Your task to perform on an android device: toggle priority inbox in the gmail app Image 0: 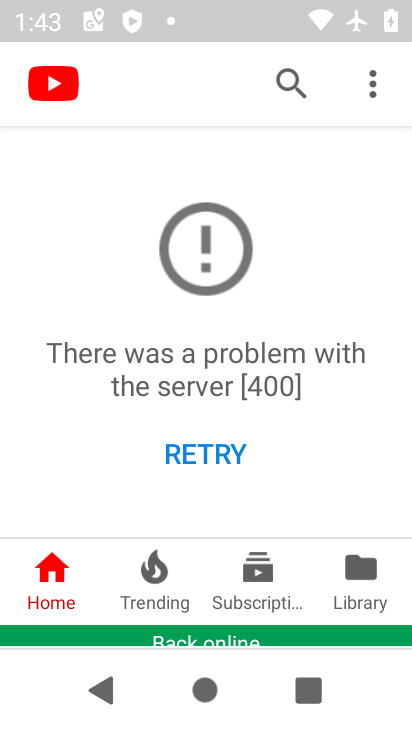
Step 0: press home button
Your task to perform on an android device: toggle priority inbox in the gmail app Image 1: 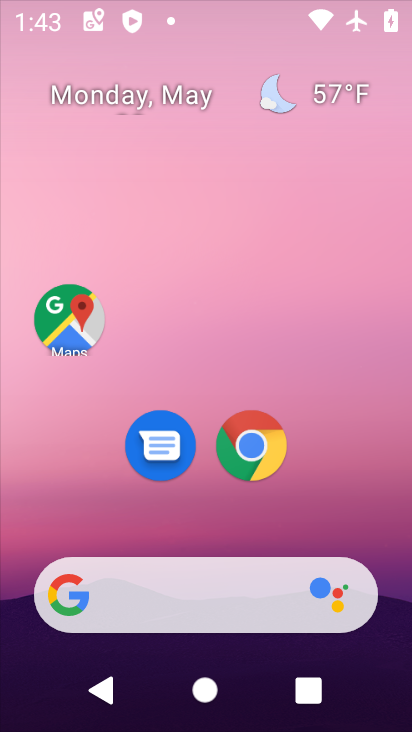
Step 1: drag from (262, 519) to (252, 71)
Your task to perform on an android device: toggle priority inbox in the gmail app Image 2: 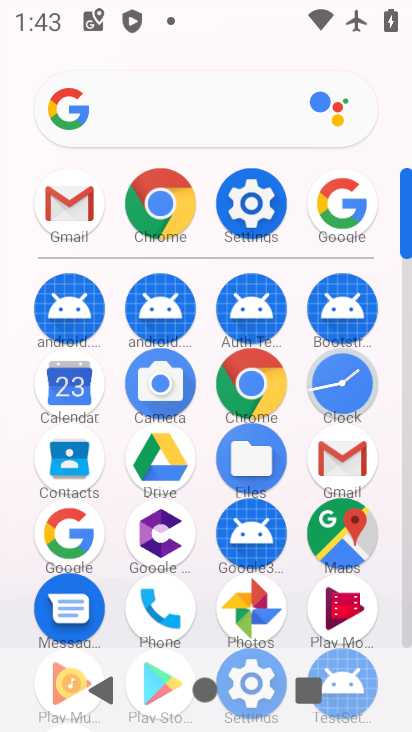
Step 2: click (62, 199)
Your task to perform on an android device: toggle priority inbox in the gmail app Image 3: 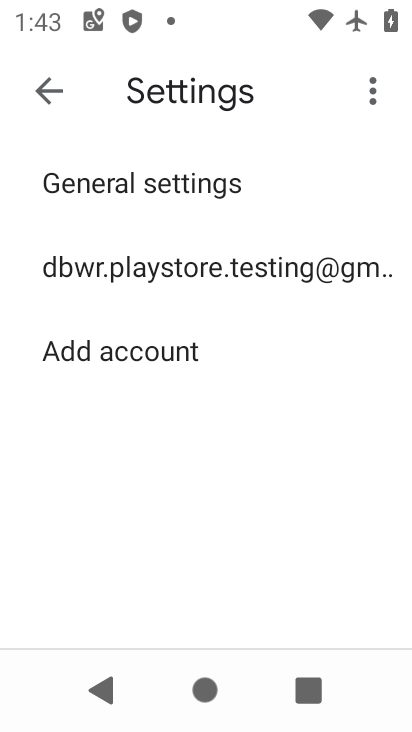
Step 3: click (109, 266)
Your task to perform on an android device: toggle priority inbox in the gmail app Image 4: 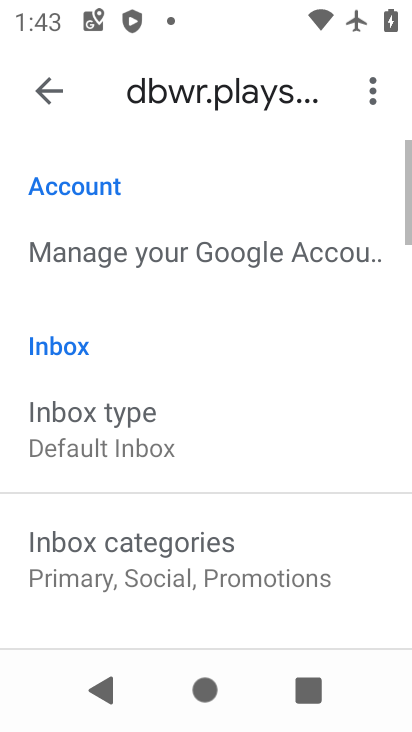
Step 4: drag from (185, 534) to (174, 251)
Your task to perform on an android device: toggle priority inbox in the gmail app Image 5: 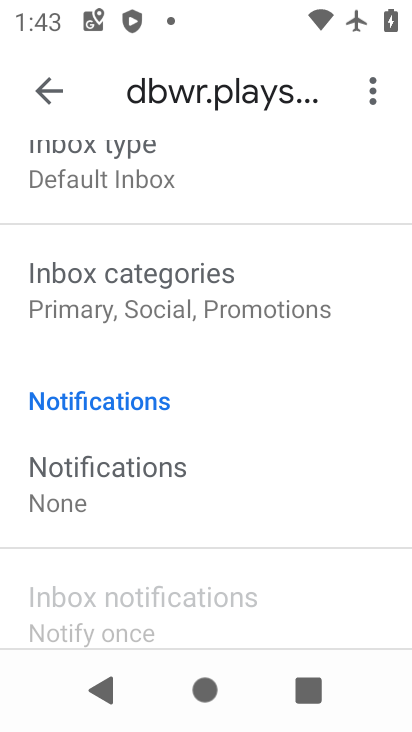
Step 5: click (121, 182)
Your task to perform on an android device: toggle priority inbox in the gmail app Image 6: 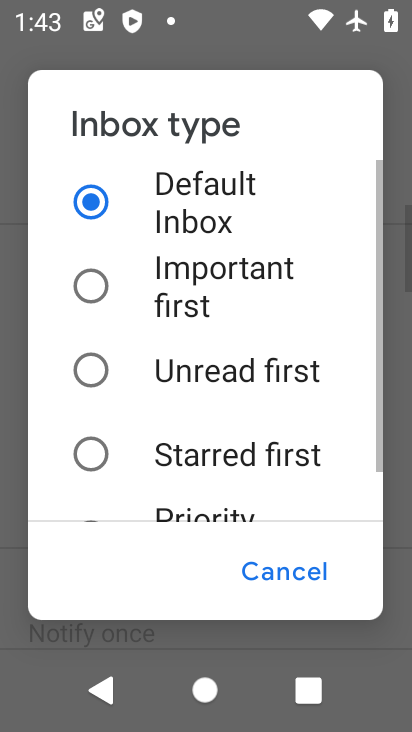
Step 6: drag from (129, 409) to (165, 190)
Your task to perform on an android device: toggle priority inbox in the gmail app Image 7: 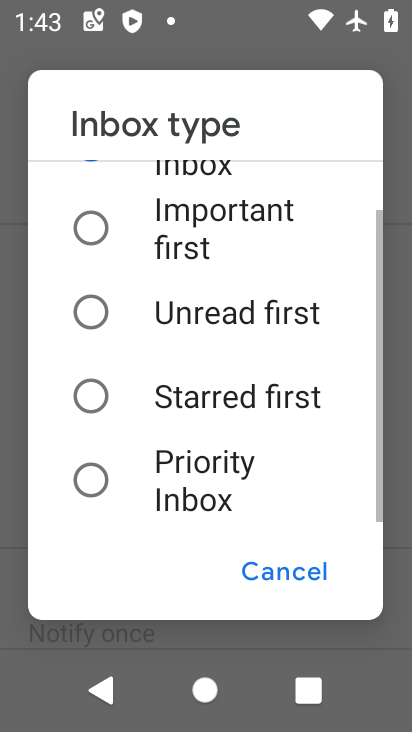
Step 7: click (85, 492)
Your task to perform on an android device: toggle priority inbox in the gmail app Image 8: 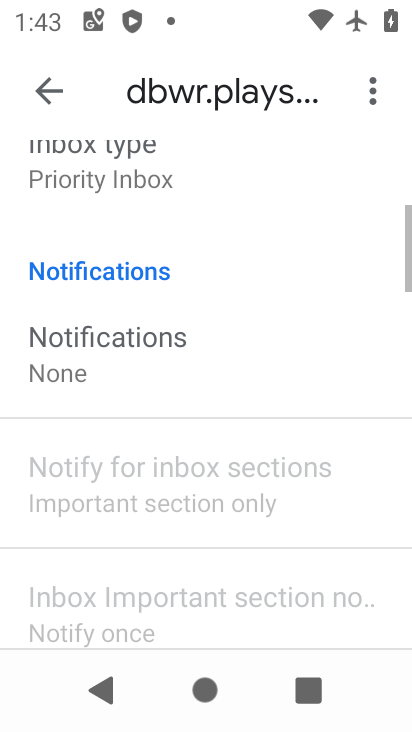
Step 8: task complete